Your task to perform on an android device: delete the emails in spam in the gmail app Image 0: 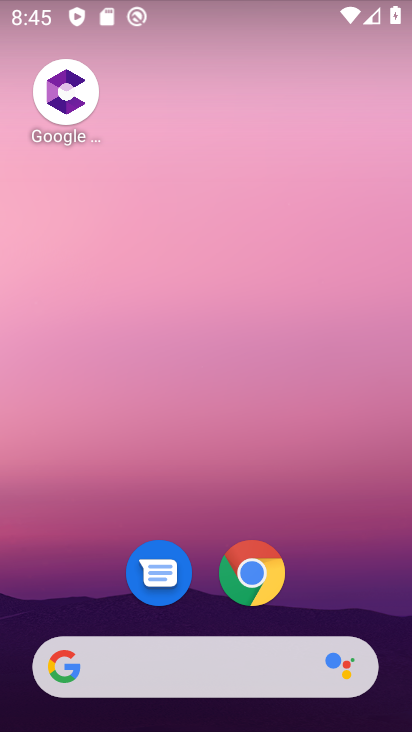
Step 0: drag from (340, 489) to (304, 20)
Your task to perform on an android device: delete the emails in spam in the gmail app Image 1: 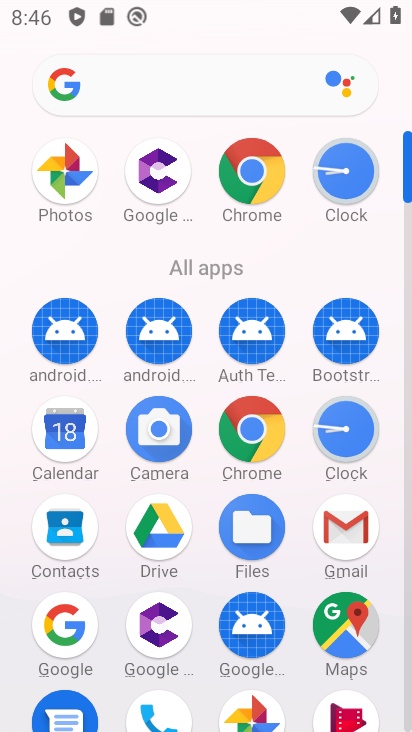
Step 1: click (333, 531)
Your task to perform on an android device: delete the emails in spam in the gmail app Image 2: 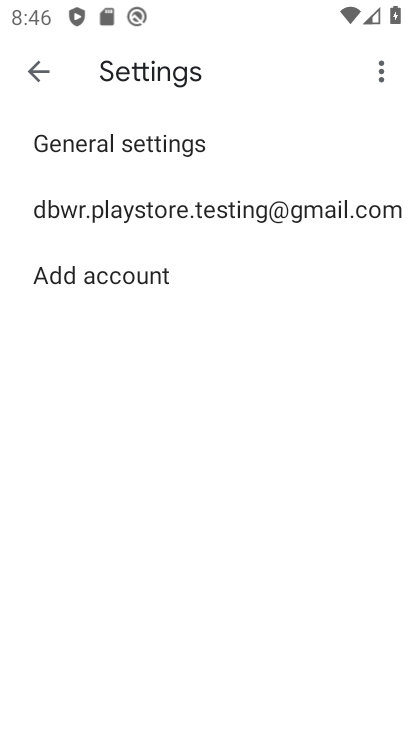
Step 2: click (29, 64)
Your task to perform on an android device: delete the emails in spam in the gmail app Image 3: 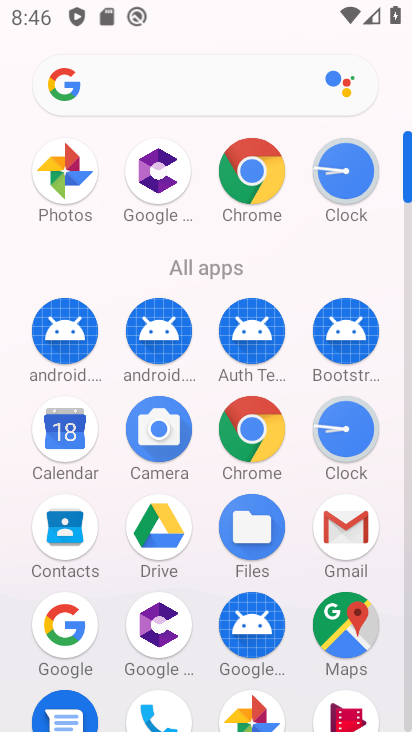
Step 3: click (353, 530)
Your task to perform on an android device: delete the emails in spam in the gmail app Image 4: 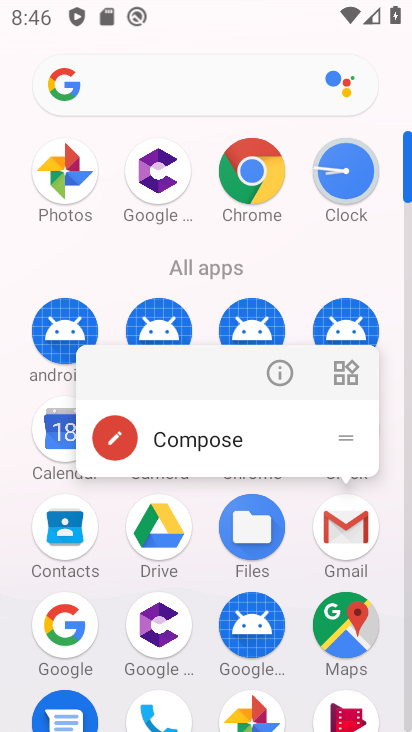
Step 4: click (354, 530)
Your task to perform on an android device: delete the emails in spam in the gmail app Image 5: 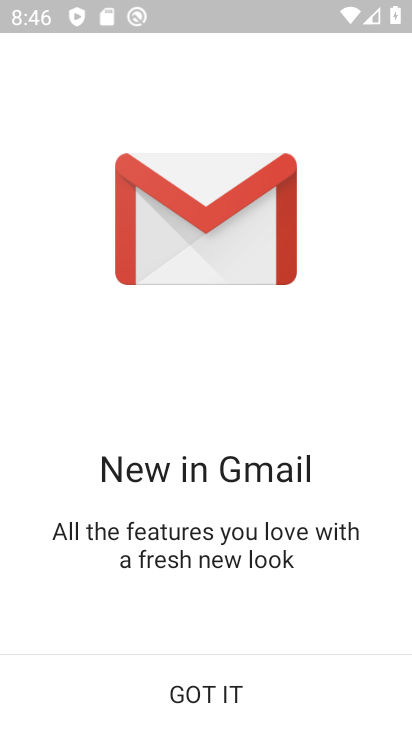
Step 5: click (194, 681)
Your task to perform on an android device: delete the emails in spam in the gmail app Image 6: 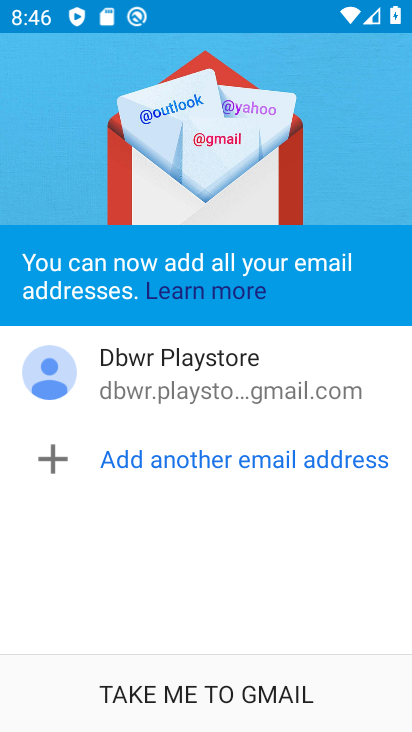
Step 6: click (196, 691)
Your task to perform on an android device: delete the emails in spam in the gmail app Image 7: 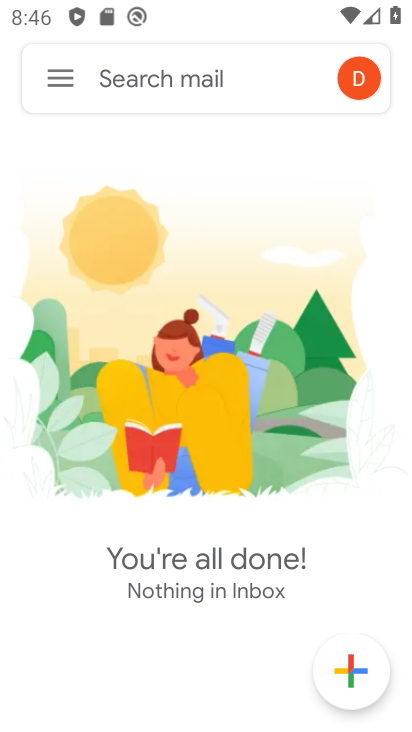
Step 7: click (67, 79)
Your task to perform on an android device: delete the emails in spam in the gmail app Image 8: 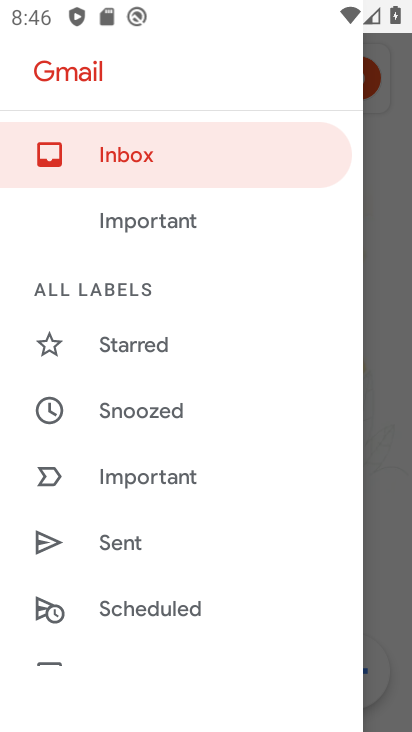
Step 8: drag from (118, 565) to (116, 166)
Your task to perform on an android device: delete the emails in spam in the gmail app Image 9: 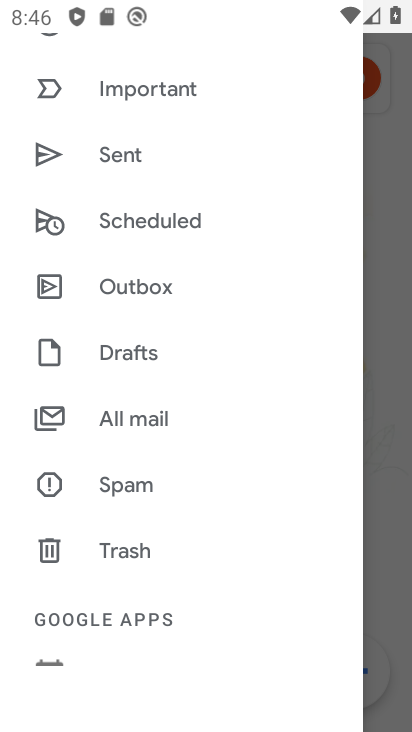
Step 9: click (110, 481)
Your task to perform on an android device: delete the emails in spam in the gmail app Image 10: 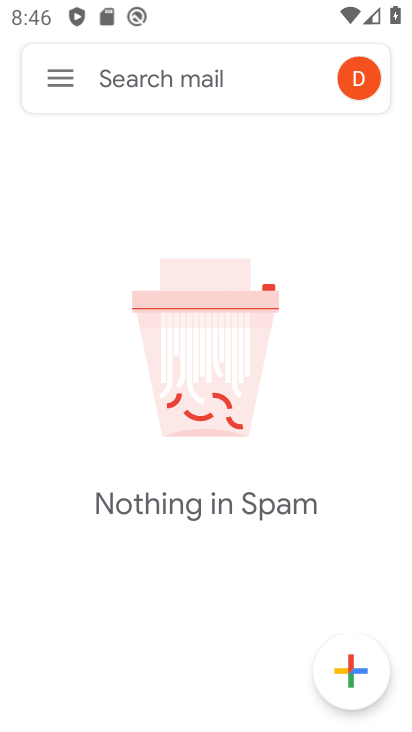
Step 10: task complete